Your task to perform on an android device: Do I have any events today? Image 0: 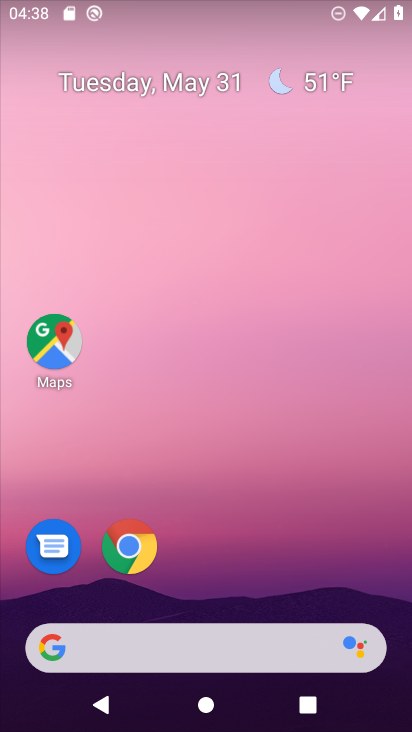
Step 0: drag from (221, 580) to (234, 251)
Your task to perform on an android device: Do I have any events today? Image 1: 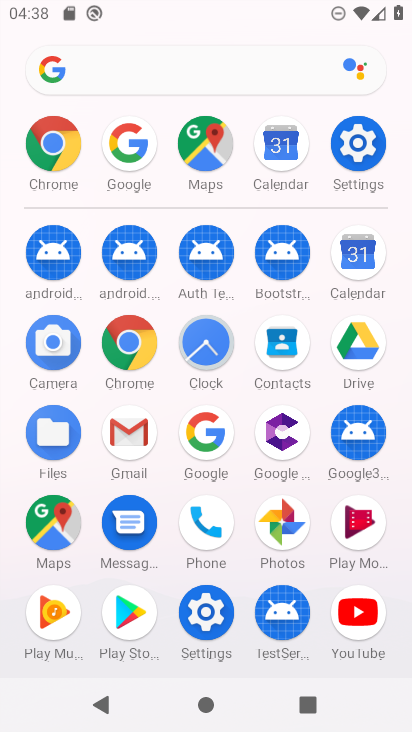
Step 1: click (349, 280)
Your task to perform on an android device: Do I have any events today? Image 2: 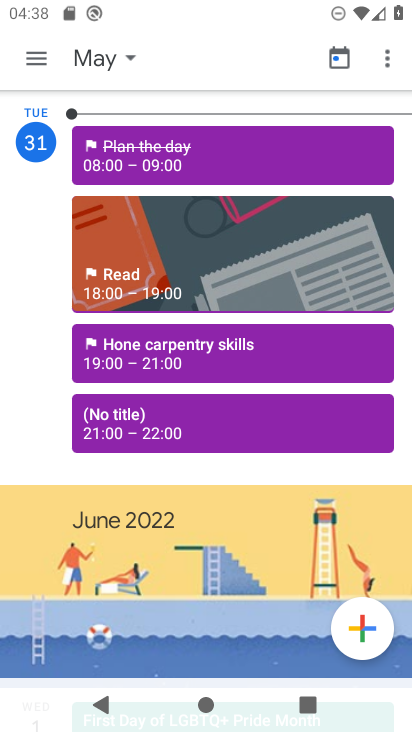
Step 2: task complete